Your task to perform on an android device: Open Google Maps Image 0: 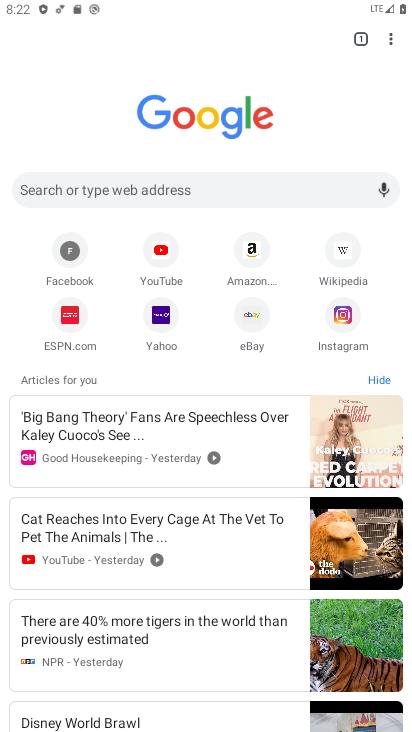
Step 0: press home button
Your task to perform on an android device: Open Google Maps Image 1: 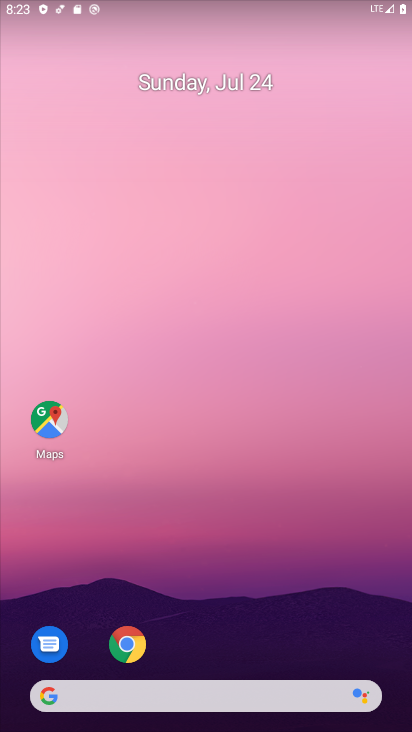
Step 1: click (25, 412)
Your task to perform on an android device: Open Google Maps Image 2: 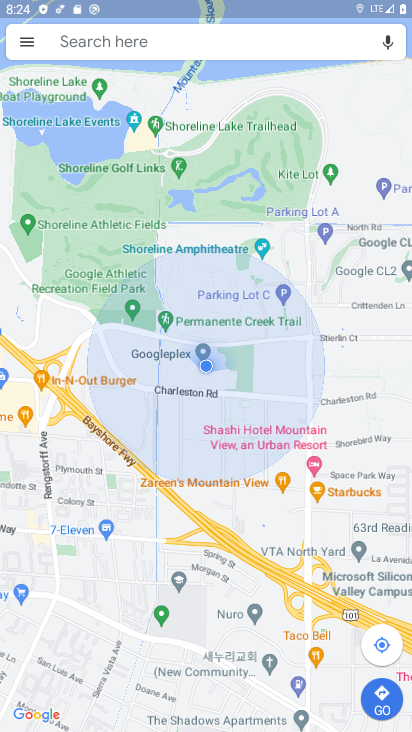
Step 2: task complete